Your task to perform on an android device: Open eBay Image 0: 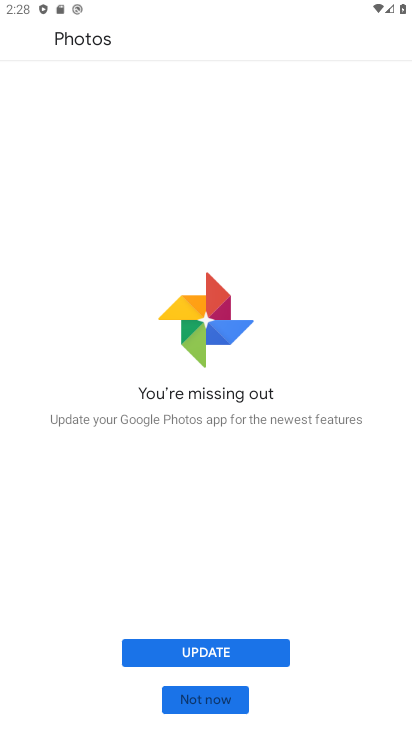
Step 0: press home button
Your task to perform on an android device: Open eBay Image 1: 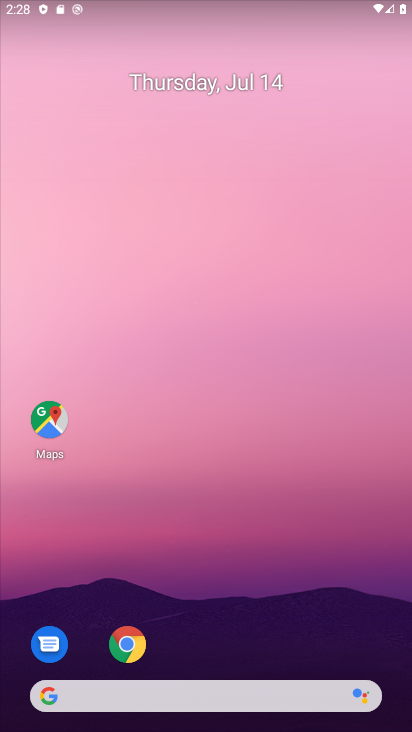
Step 1: click (131, 656)
Your task to perform on an android device: Open eBay Image 2: 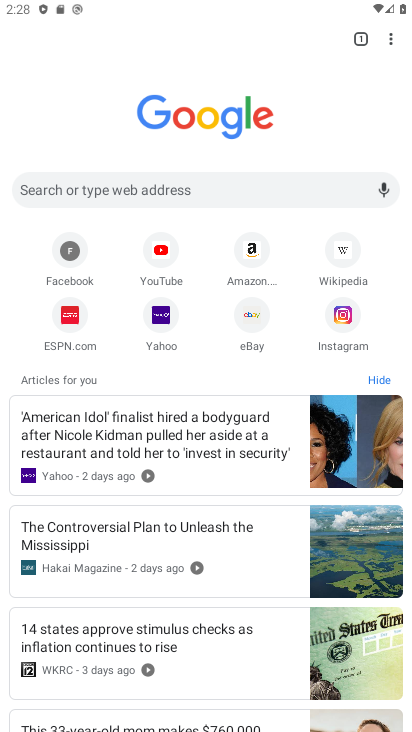
Step 2: click (253, 317)
Your task to perform on an android device: Open eBay Image 3: 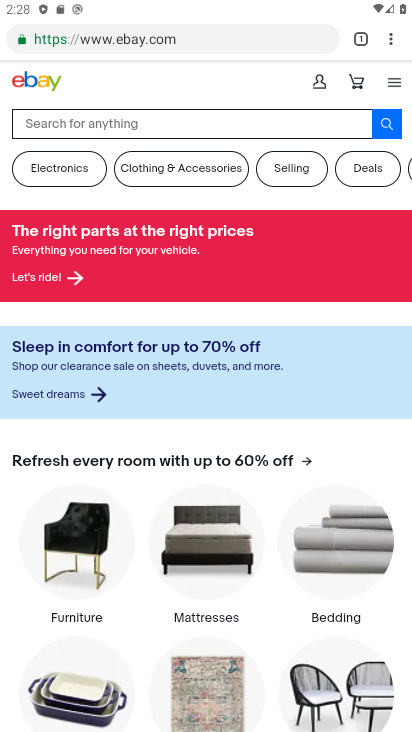
Step 3: task complete